Your task to perform on an android device: turn off airplane mode Image 0: 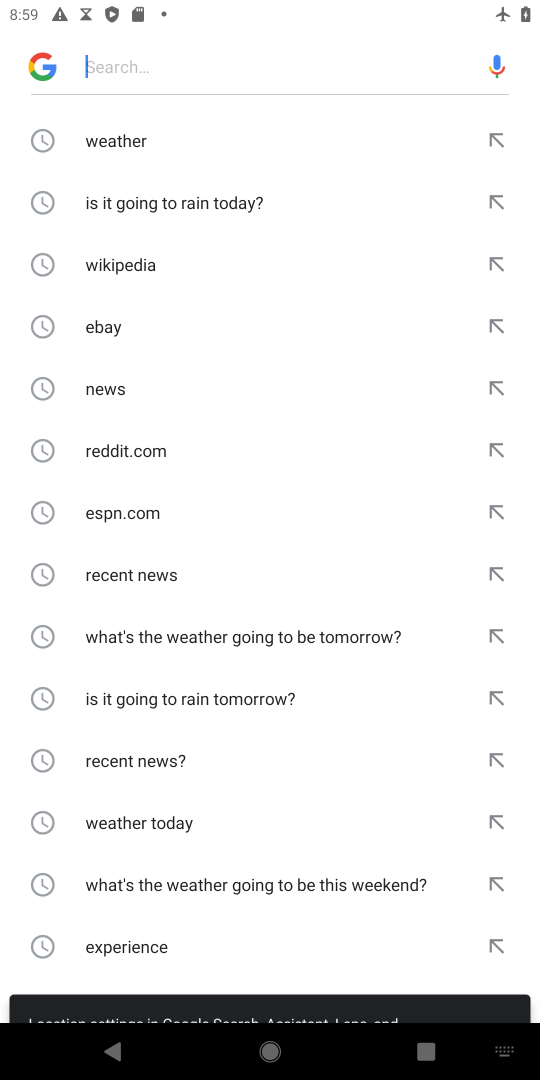
Step 0: press home button
Your task to perform on an android device: turn off airplane mode Image 1: 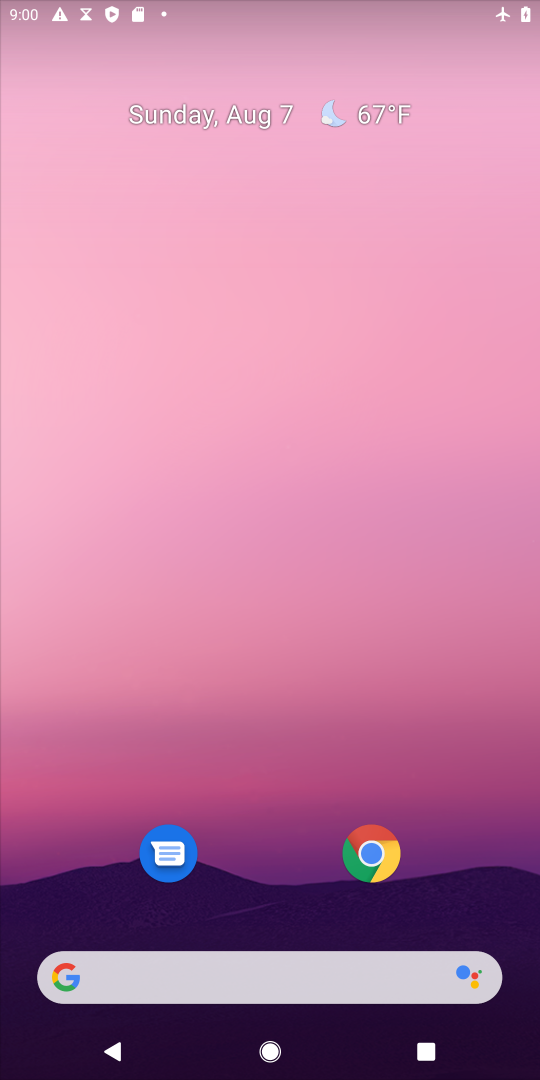
Step 1: drag from (260, 925) to (368, 12)
Your task to perform on an android device: turn off airplane mode Image 2: 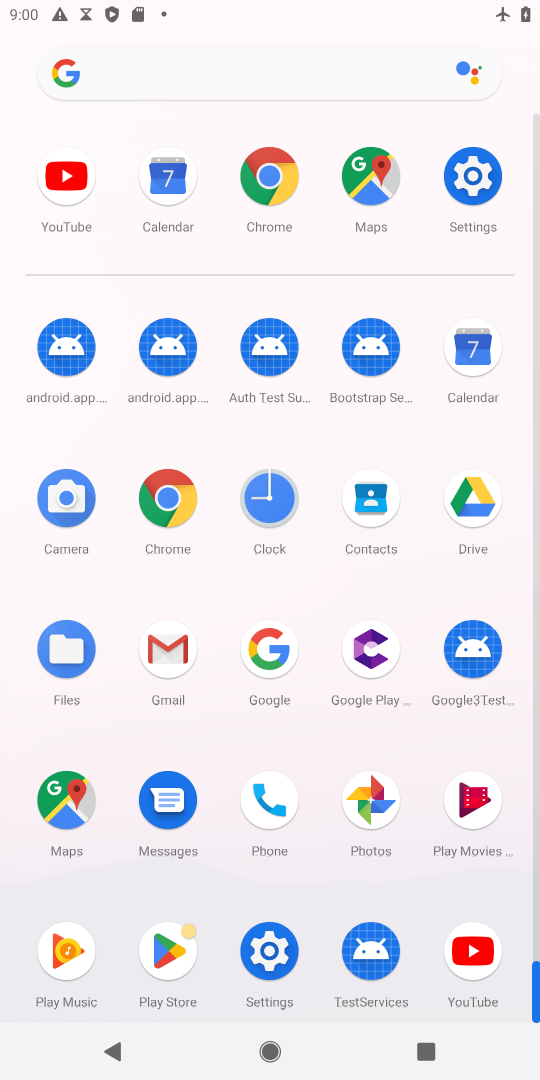
Step 2: click (454, 161)
Your task to perform on an android device: turn off airplane mode Image 3: 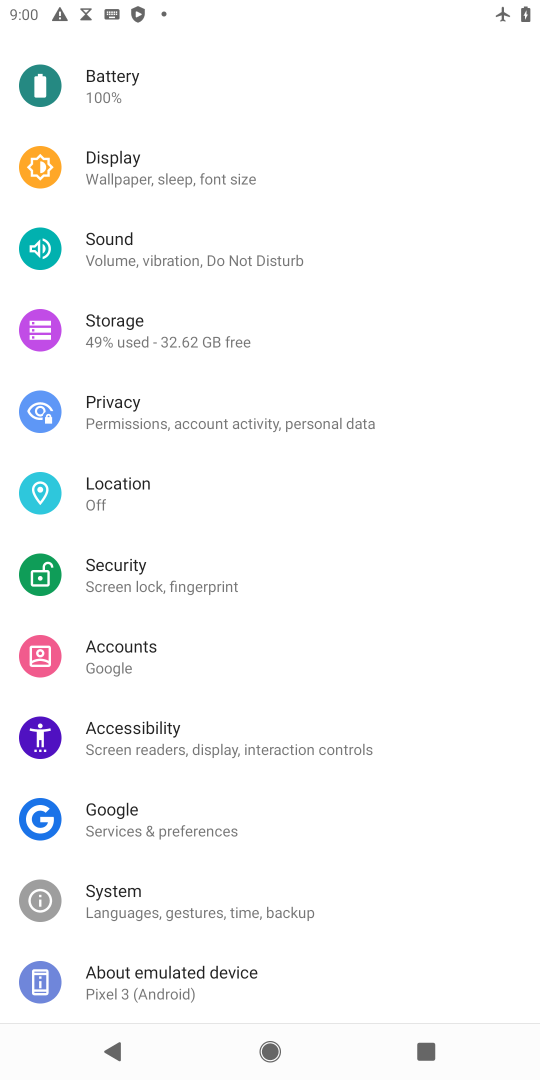
Step 3: drag from (276, 60) to (336, 852)
Your task to perform on an android device: turn off airplane mode Image 4: 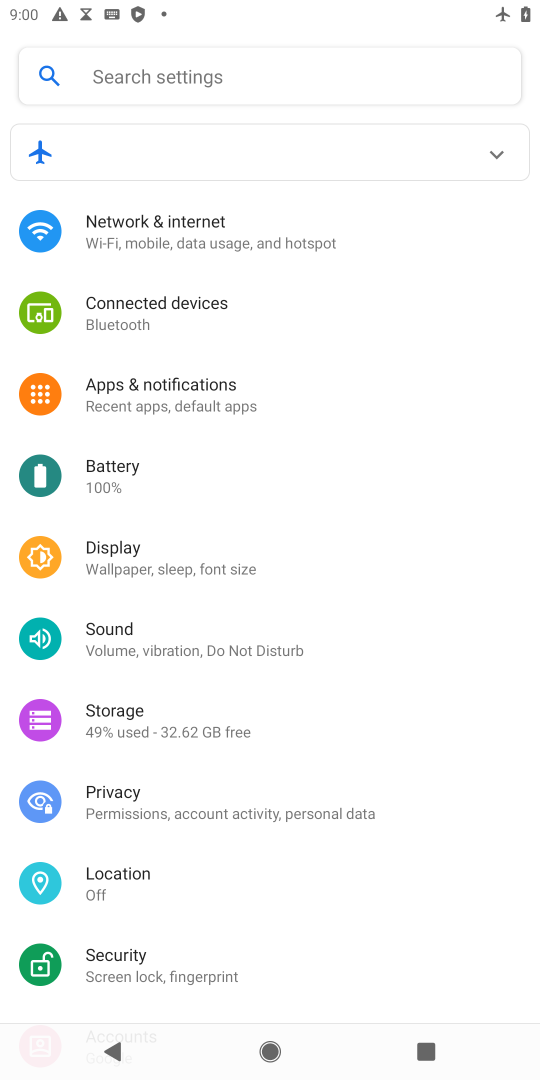
Step 4: drag from (226, 126) to (228, 830)
Your task to perform on an android device: turn off airplane mode Image 5: 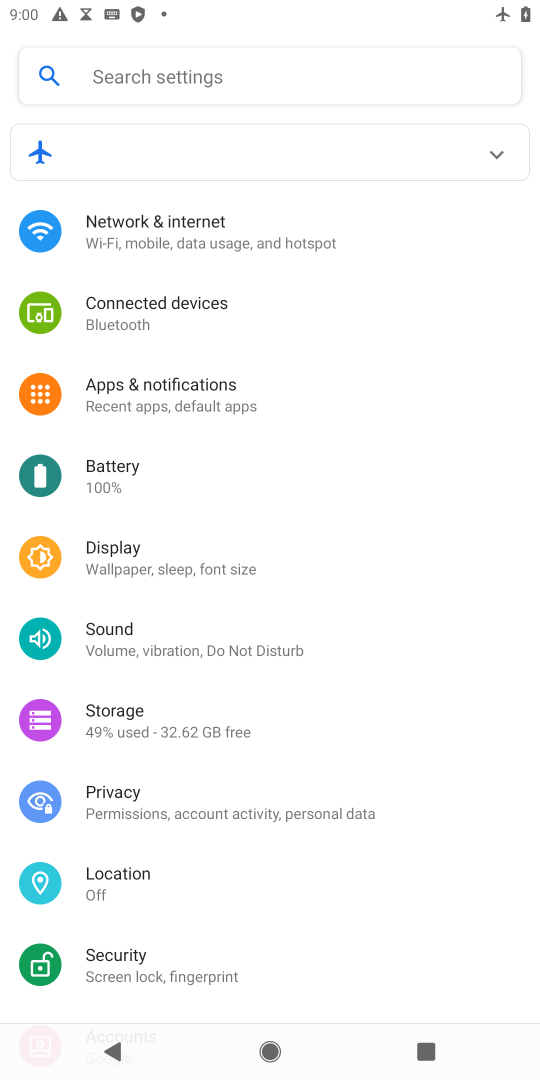
Step 5: click (250, 226)
Your task to perform on an android device: turn off airplane mode Image 6: 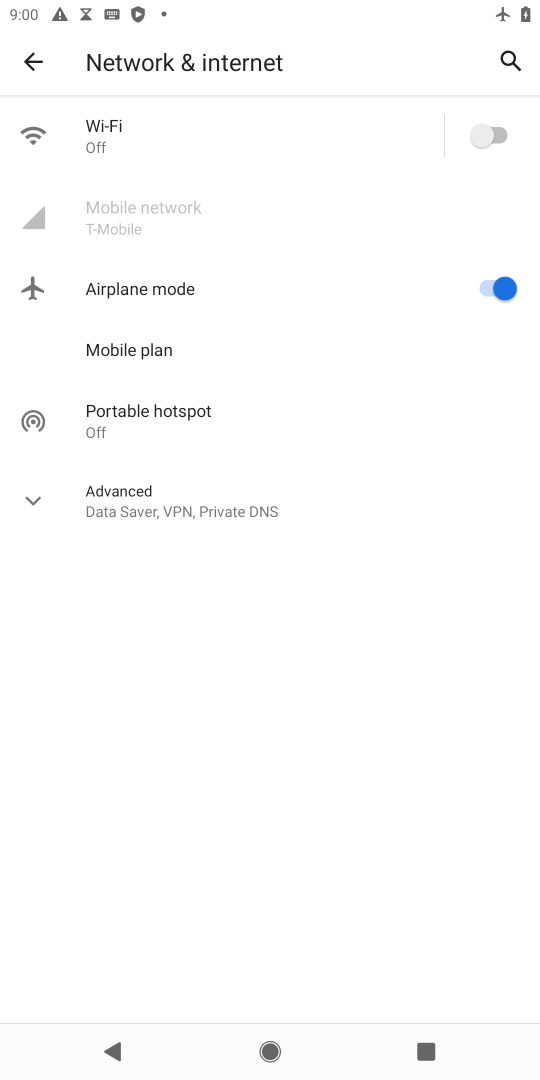
Step 6: click (481, 276)
Your task to perform on an android device: turn off airplane mode Image 7: 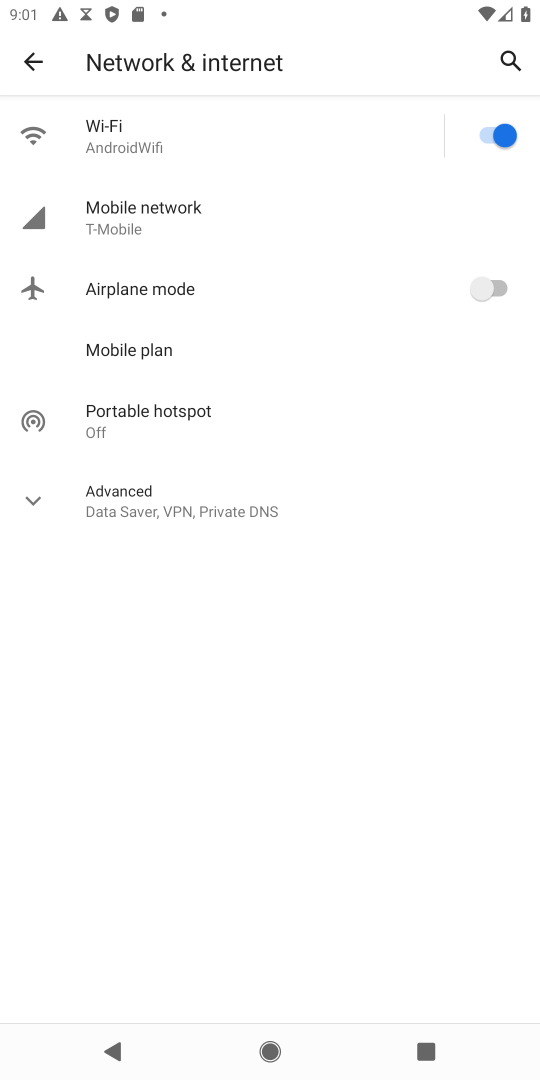
Step 7: task complete